Your task to perform on an android device: Go to settings Image 0: 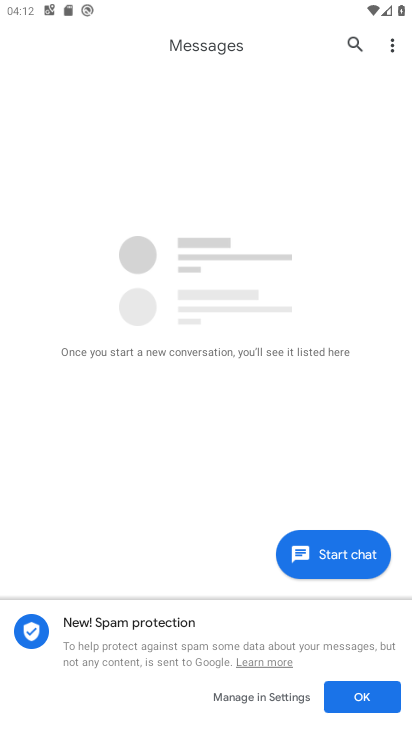
Step 0: drag from (242, 11) to (239, 683)
Your task to perform on an android device: Go to settings Image 1: 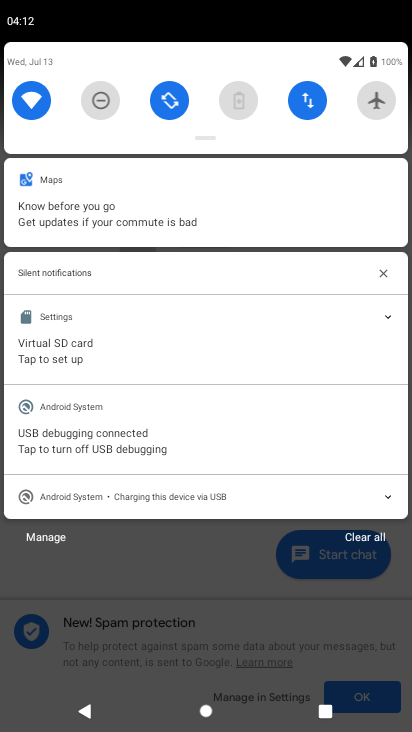
Step 1: drag from (209, 48) to (233, 619)
Your task to perform on an android device: Go to settings Image 2: 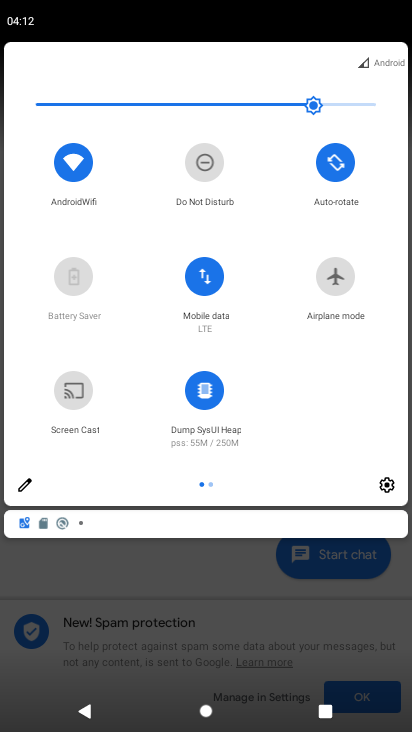
Step 2: click (389, 486)
Your task to perform on an android device: Go to settings Image 3: 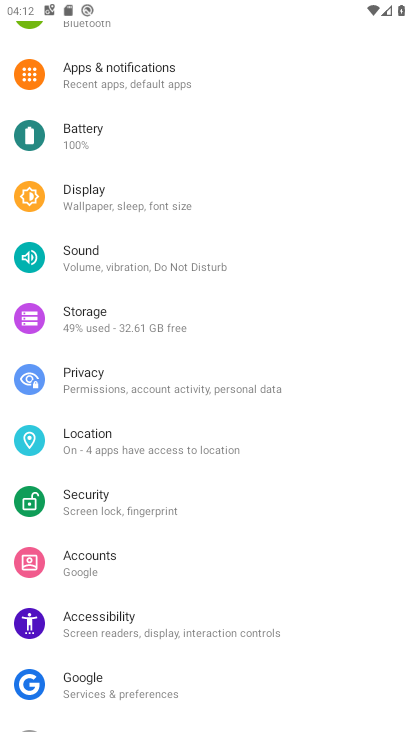
Step 3: task complete